Your task to perform on an android device: Open sound settings Image 0: 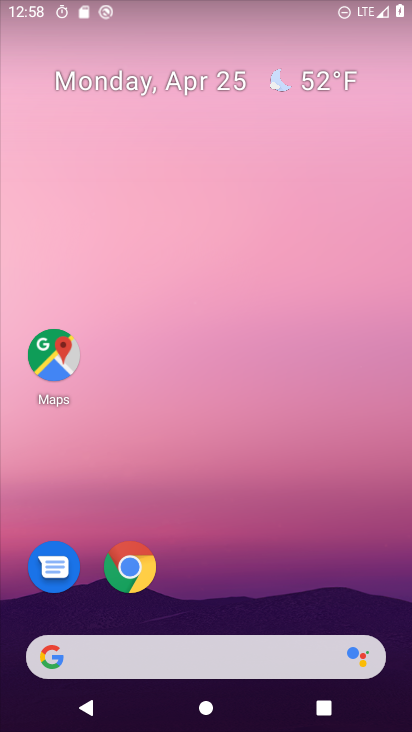
Step 0: drag from (266, 569) to (306, 83)
Your task to perform on an android device: Open sound settings Image 1: 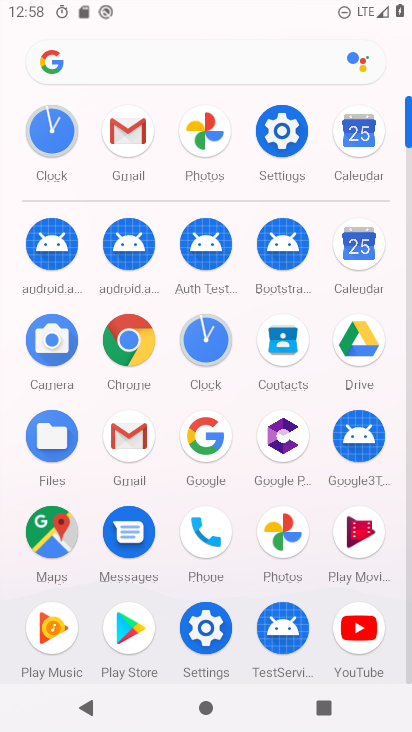
Step 1: click (277, 130)
Your task to perform on an android device: Open sound settings Image 2: 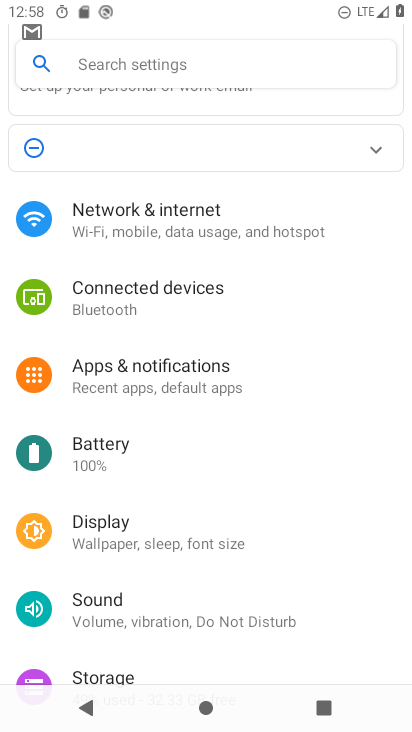
Step 2: click (200, 608)
Your task to perform on an android device: Open sound settings Image 3: 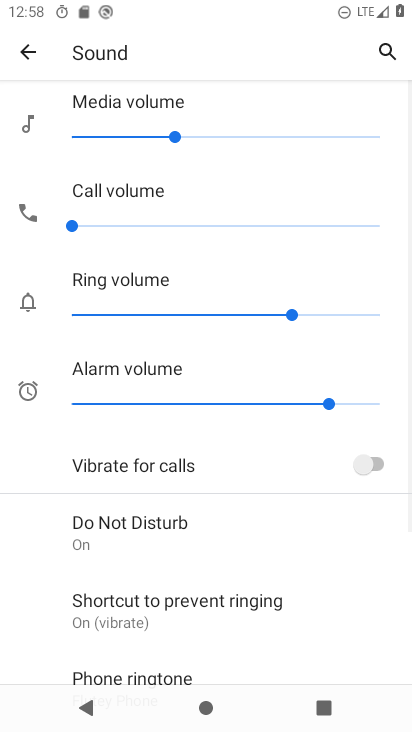
Step 3: task complete